Your task to perform on an android device: open the mobile data screen to see how much data has been used Image 0: 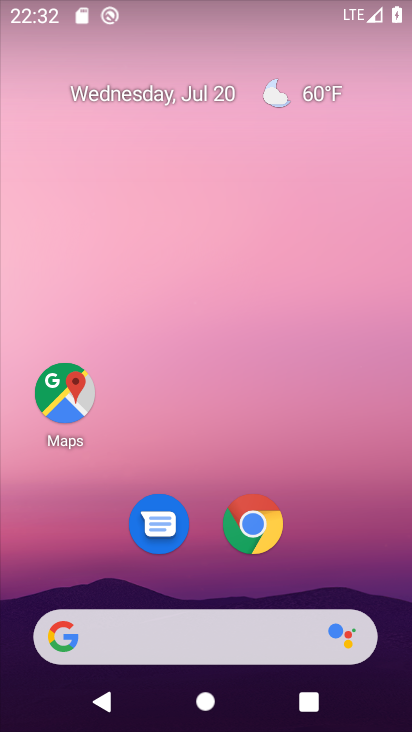
Step 0: drag from (323, 558) to (335, 0)
Your task to perform on an android device: open the mobile data screen to see how much data has been used Image 1: 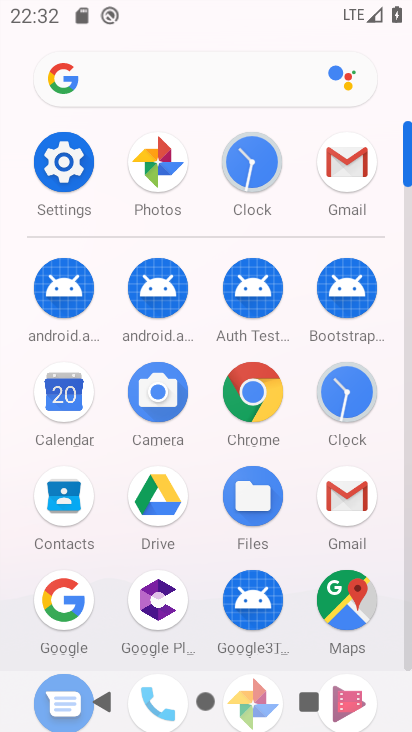
Step 1: click (50, 151)
Your task to perform on an android device: open the mobile data screen to see how much data has been used Image 2: 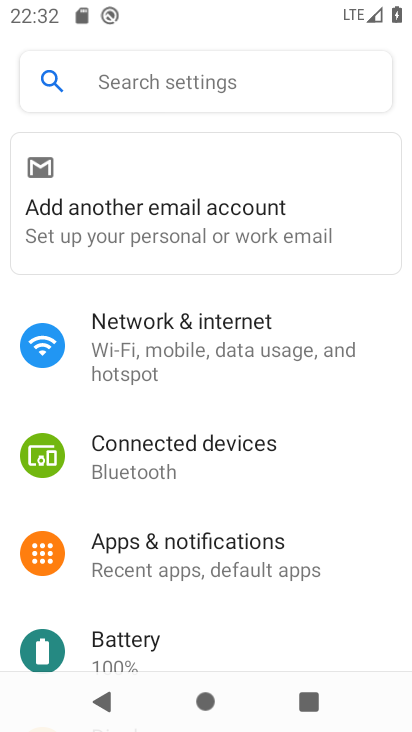
Step 2: click (258, 356)
Your task to perform on an android device: open the mobile data screen to see how much data has been used Image 3: 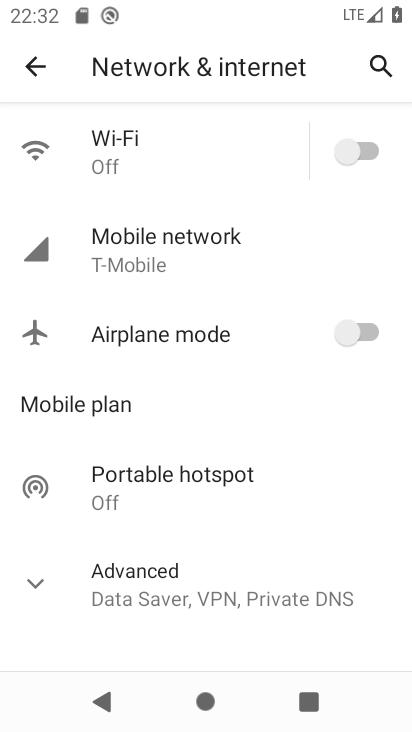
Step 3: click (164, 237)
Your task to perform on an android device: open the mobile data screen to see how much data has been used Image 4: 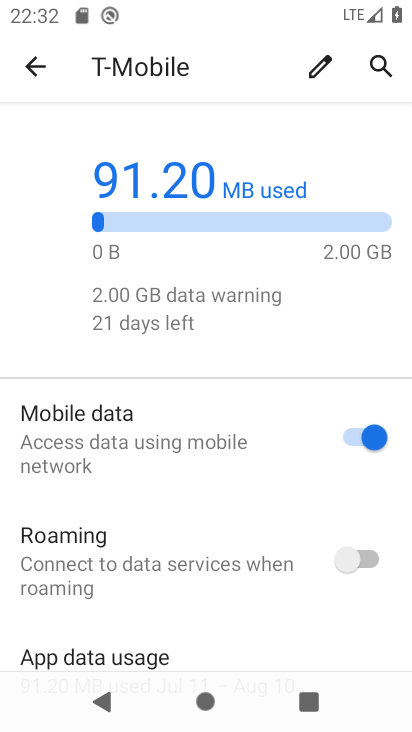
Step 4: task complete